Your task to perform on an android device: What's the weather going to be tomorrow? Image 0: 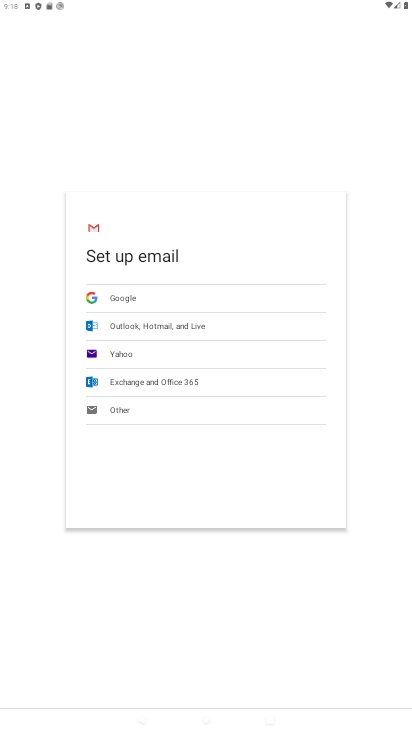
Step 0: press home button
Your task to perform on an android device: What's the weather going to be tomorrow? Image 1: 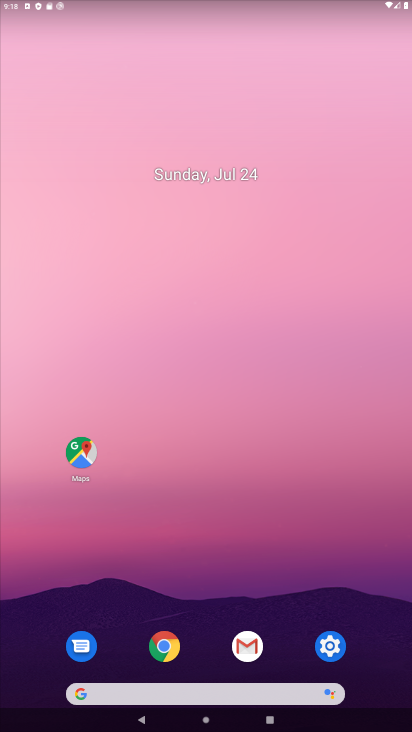
Step 1: click (237, 689)
Your task to perform on an android device: What's the weather going to be tomorrow? Image 2: 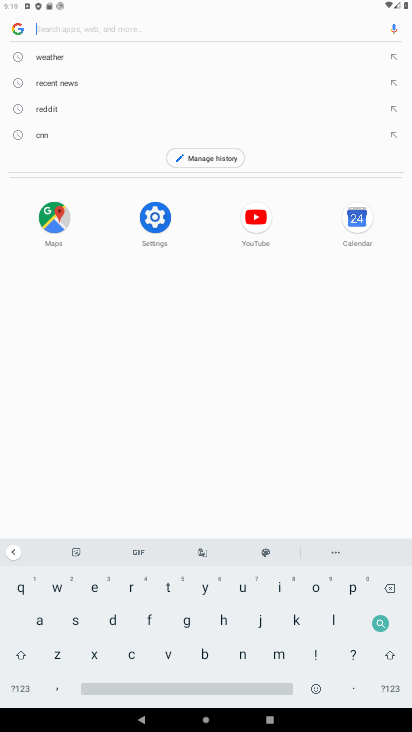
Step 2: click (55, 595)
Your task to perform on an android device: What's the weather going to be tomorrow? Image 3: 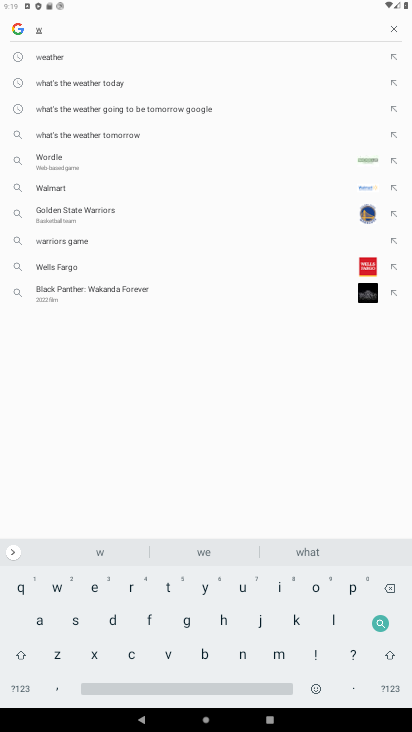
Step 3: click (223, 622)
Your task to perform on an android device: What's the weather going to be tomorrow? Image 4: 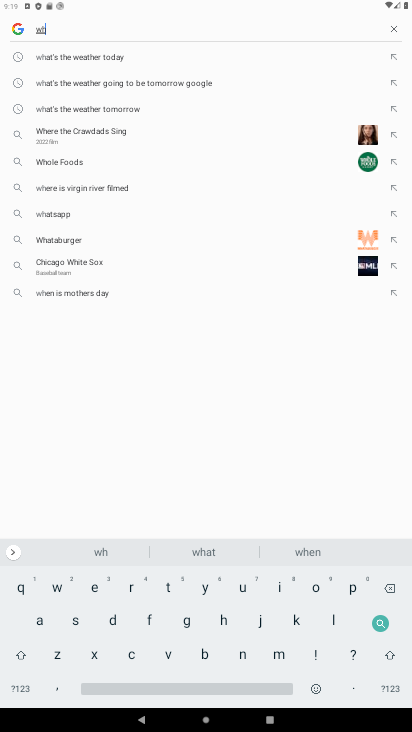
Step 4: click (38, 620)
Your task to perform on an android device: What's the weather going to be tomorrow? Image 5: 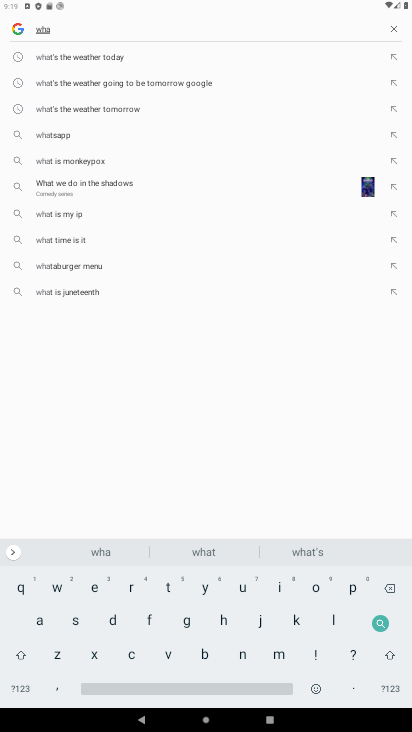
Step 5: click (317, 549)
Your task to perform on an android device: What's the weather going to be tomorrow? Image 6: 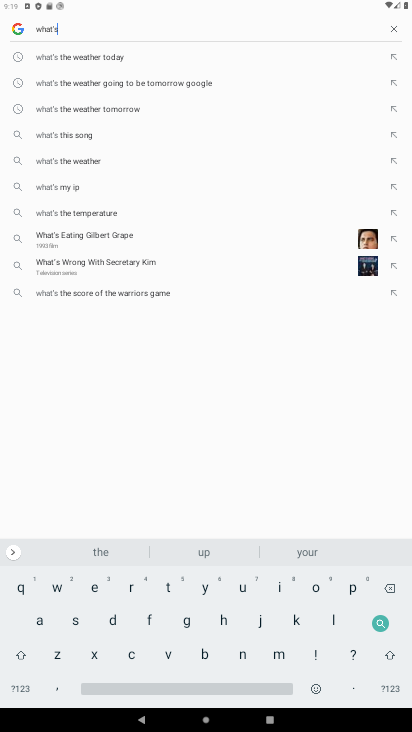
Step 6: click (103, 557)
Your task to perform on an android device: What's the weather going to be tomorrow? Image 7: 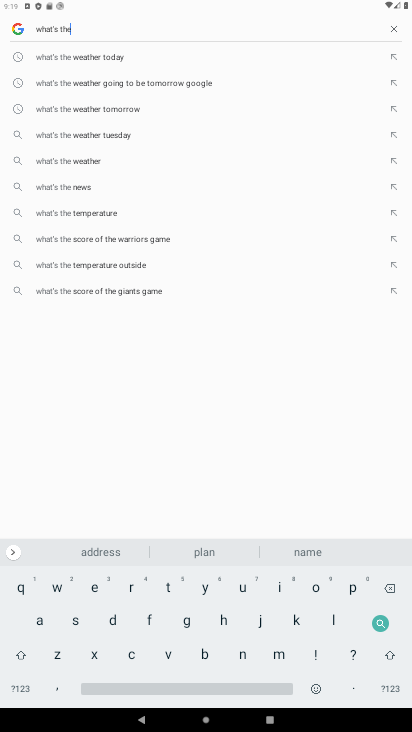
Step 7: click (57, 588)
Your task to perform on an android device: What's the weather going to be tomorrow? Image 8: 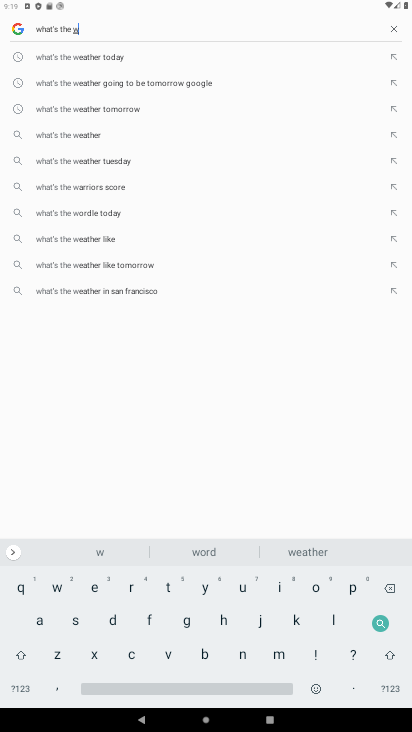
Step 8: click (87, 107)
Your task to perform on an android device: What's the weather going to be tomorrow? Image 9: 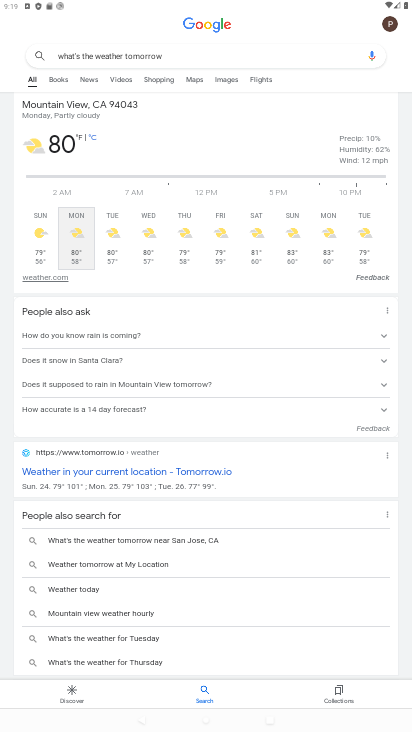
Step 9: task complete